Your task to perform on an android device: add a contact in the contacts app Image 0: 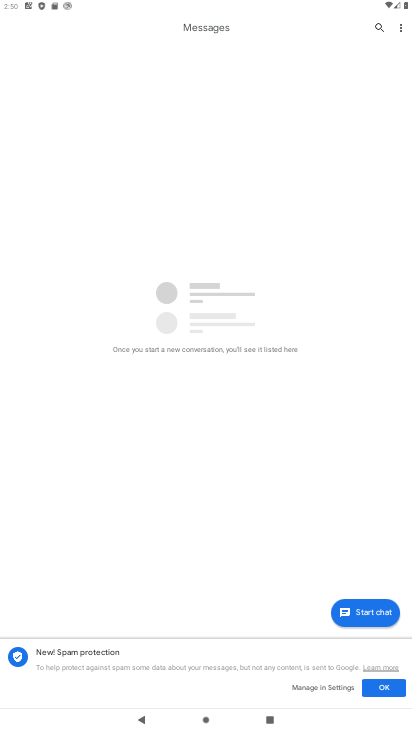
Step 0: press home button
Your task to perform on an android device: add a contact in the contacts app Image 1: 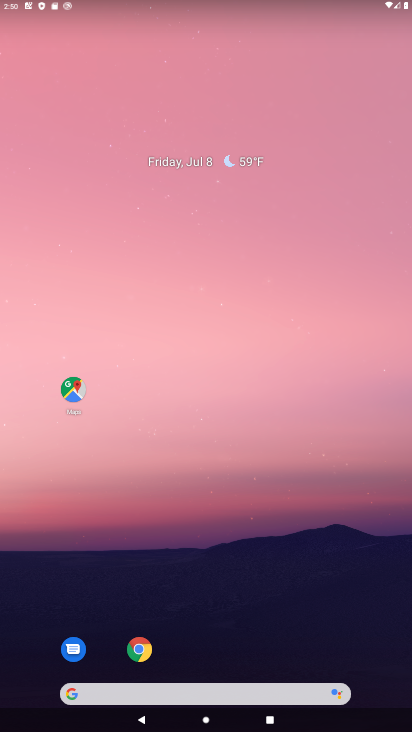
Step 1: drag from (341, 558) to (334, 119)
Your task to perform on an android device: add a contact in the contacts app Image 2: 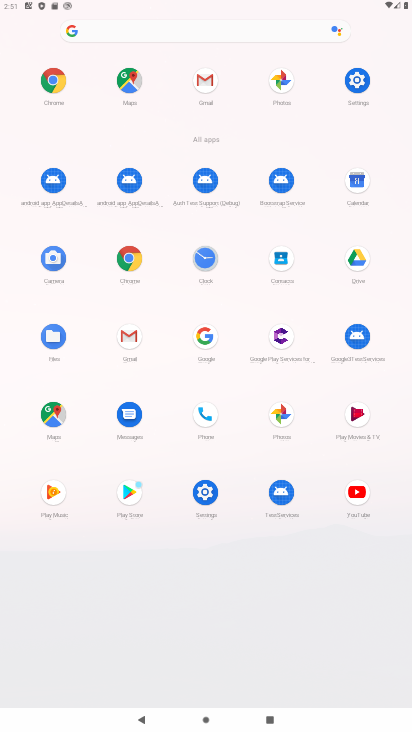
Step 2: click (287, 255)
Your task to perform on an android device: add a contact in the contacts app Image 3: 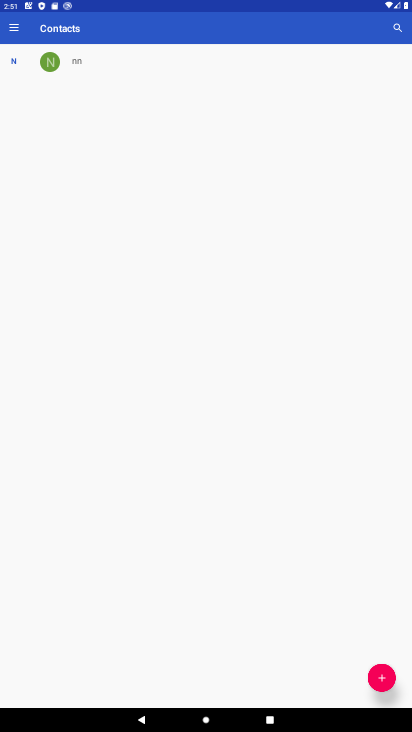
Step 3: click (388, 668)
Your task to perform on an android device: add a contact in the contacts app Image 4: 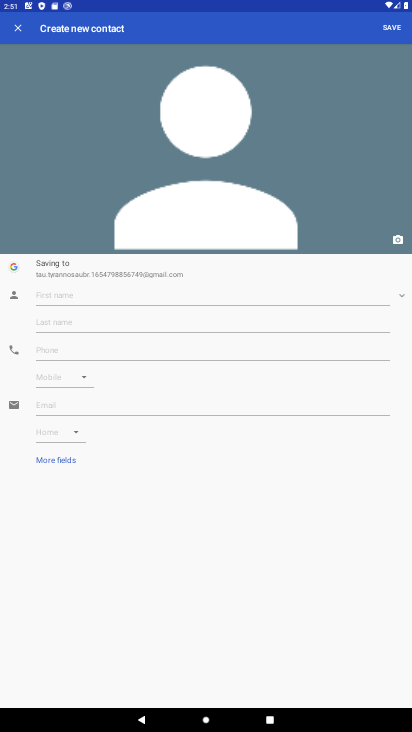
Step 4: click (184, 295)
Your task to perform on an android device: add a contact in the contacts app Image 5: 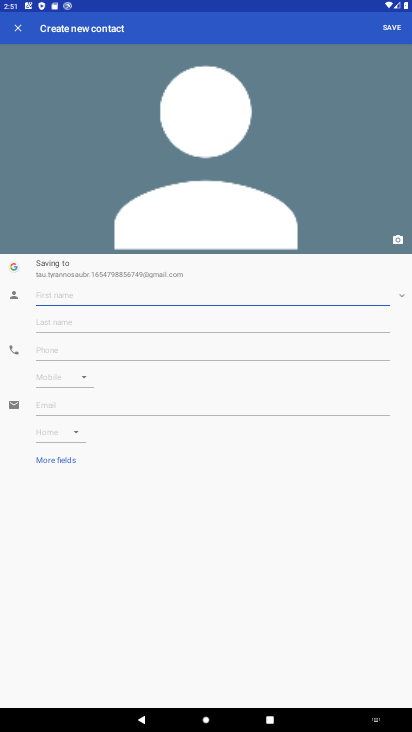
Step 5: type "alpsankh"
Your task to perform on an android device: add a contact in the contacts app Image 6: 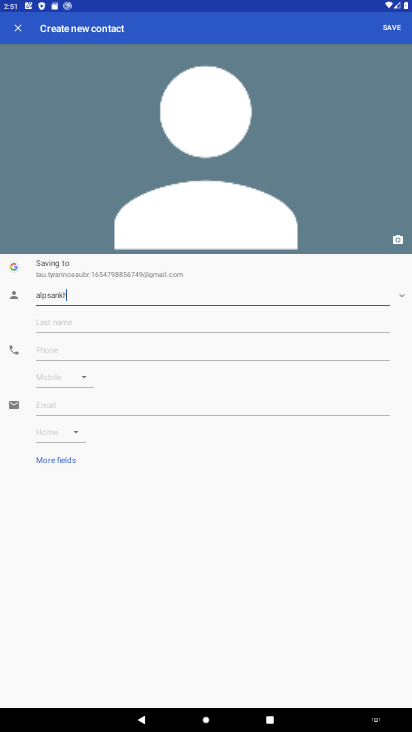
Step 6: click (394, 23)
Your task to perform on an android device: add a contact in the contacts app Image 7: 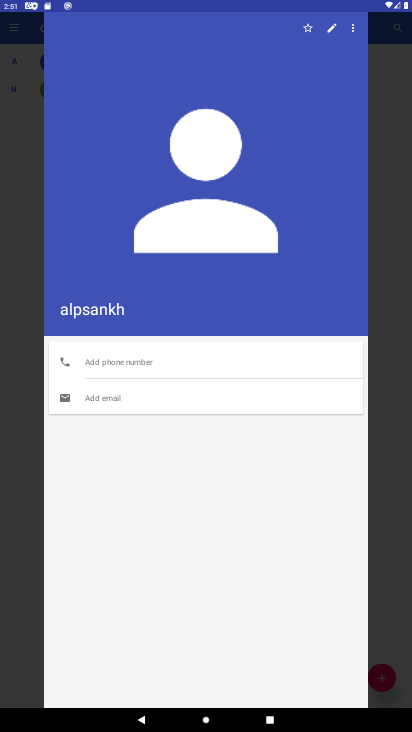
Step 7: task complete